Your task to perform on an android device: Go to Yahoo.com Image 0: 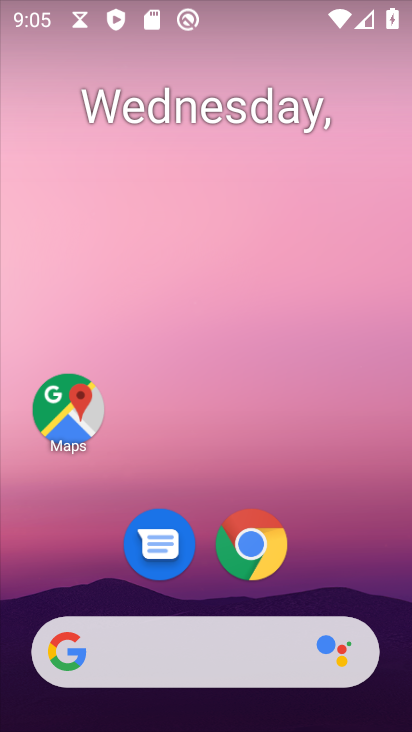
Step 0: drag from (154, 611) to (307, 73)
Your task to perform on an android device: Go to Yahoo.com Image 1: 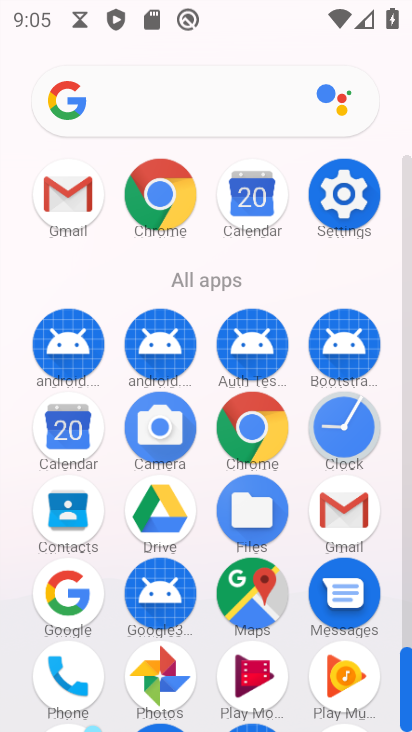
Step 1: click (168, 214)
Your task to perform on an android device: Go to Yahoo.com Image 2: 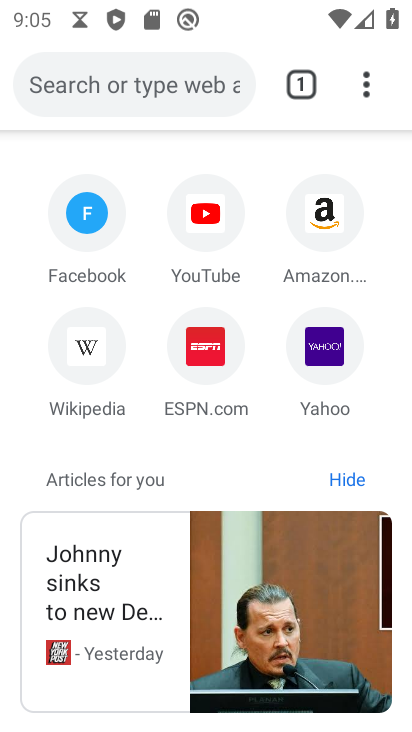
Step 2: click (326, 360)
Your task to perform on an android device: Go to Yahoo.com Image 3: 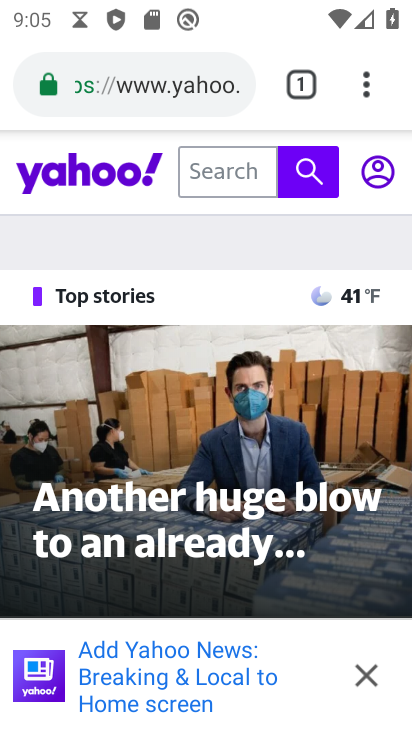
Step 3: task complete